Your task to perform on an android device: Go to internet settings Image 0: 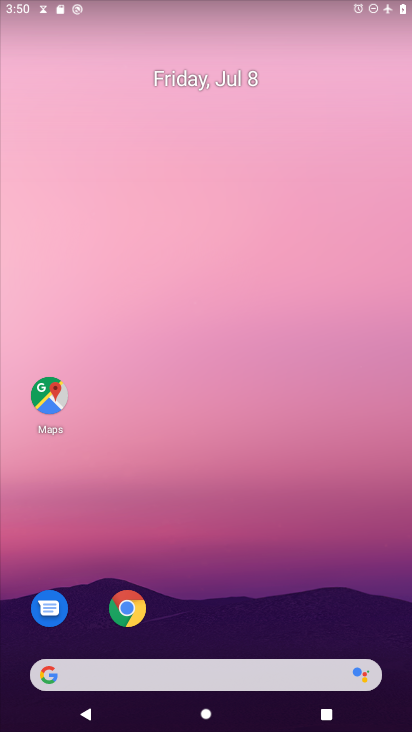
Step 0: drag from (237, 654) to (300, 33)
Your task to perform on an android device: Go to internet settings Image 1: 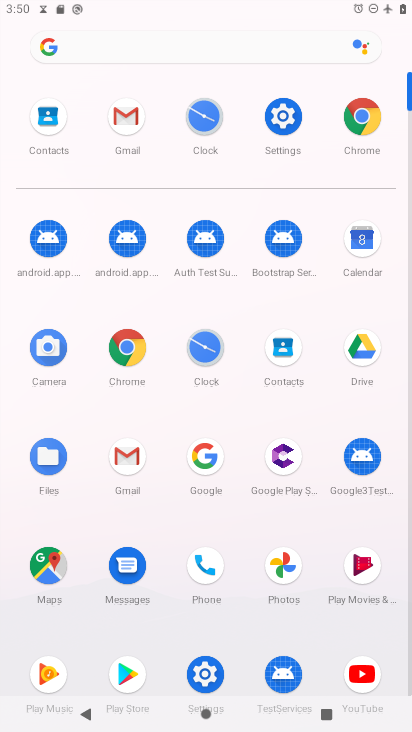
Step 1: click (282, 124)
Your task to perform on an android device: Go to internet settings Image 2: 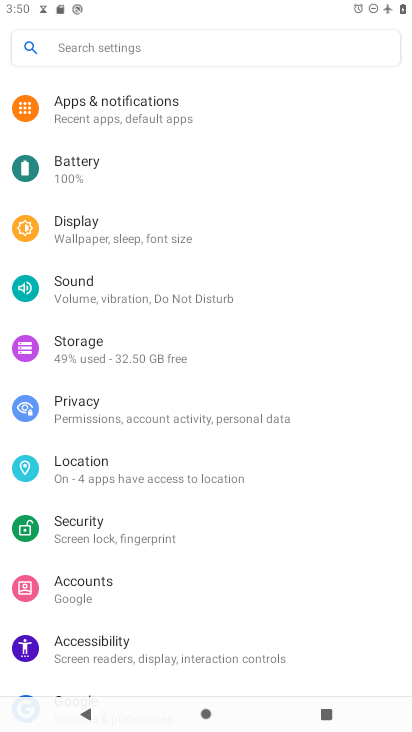
Step 2: drag from (150, 138) to (168, 543)
Your task to perform on an android device: Go to internet settings Image 3: 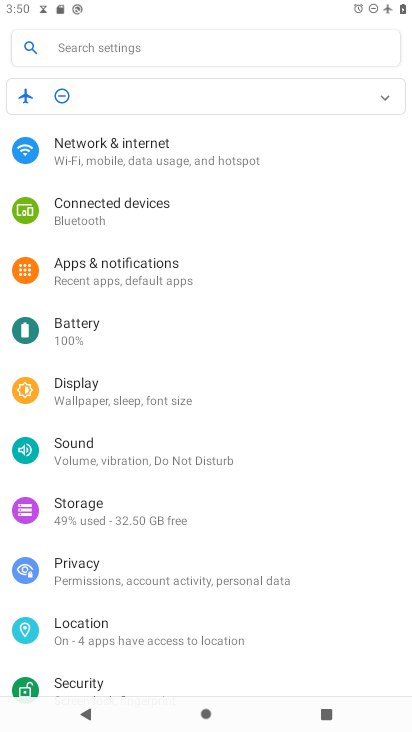
Step 3: click (236, 143)
Your task to perform on an android device: Go to internet settings Image 4: 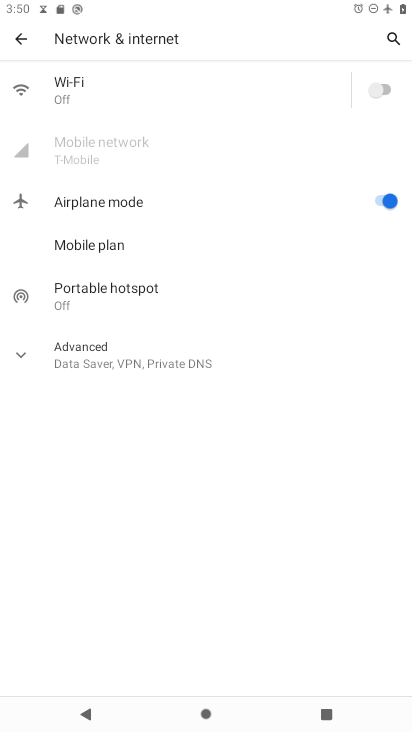
Step 4: task complete